Your task to perform on an android device: Open wifi settings Image 0: 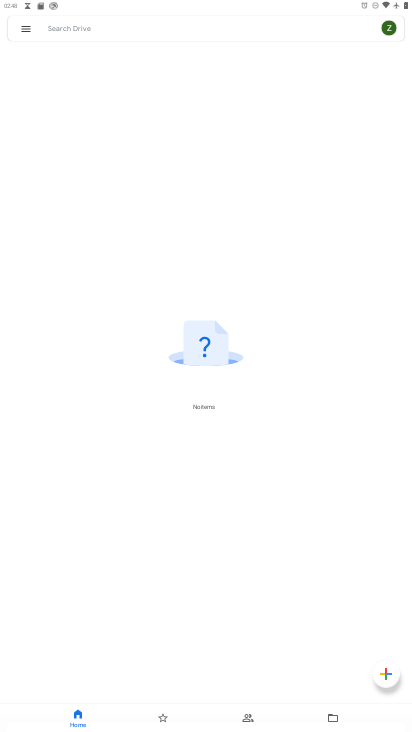
Step 0: press home button
Your task to perform on an android device: Open wifi settings Image 1: 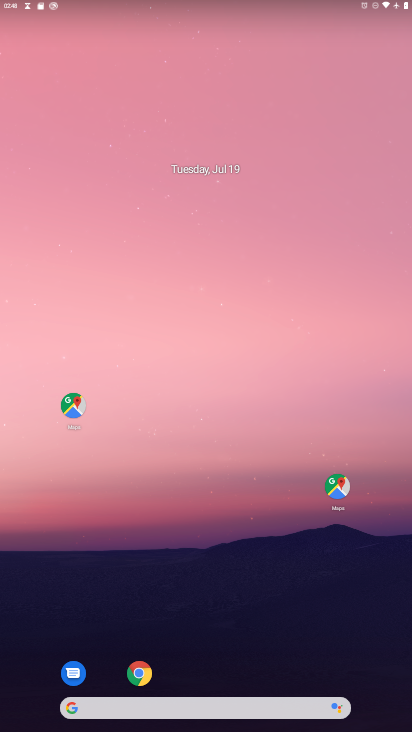
Step 1: drag from (258, 612) to (299, 139)
Your task to perform on an android device: Open wifi settings Image 2: 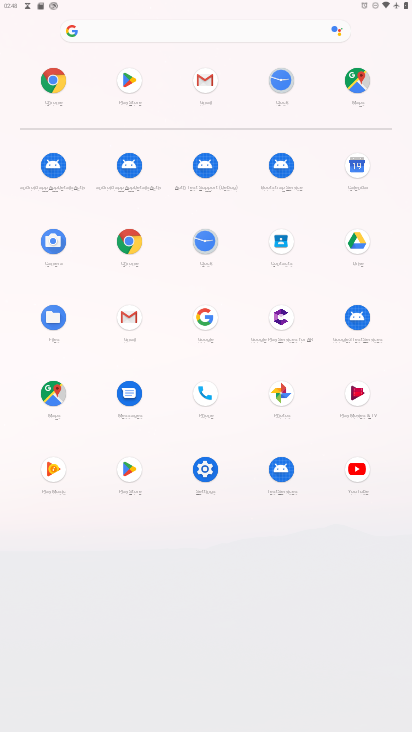
Step 2: click (213, 458)
Your task to perform on an android device: Open wifi settings Image 3: 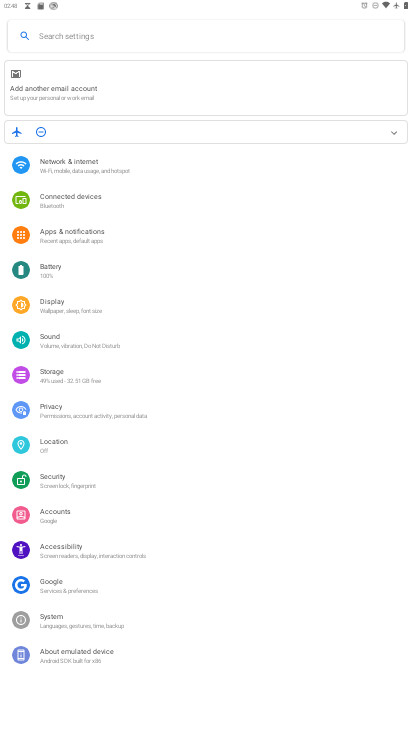
Step 3: click (90, 156)
Your task to perform on an android device: Open wifi settings Image 4: 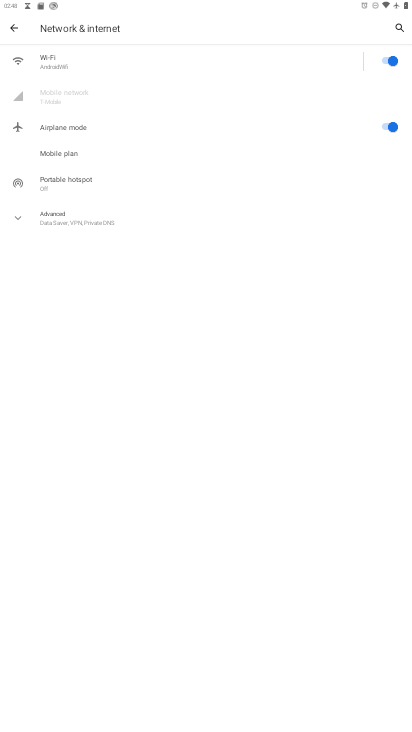
Step 4: click (205, 56)
Your task to perform on an android device: Open wifi settings Image 5: 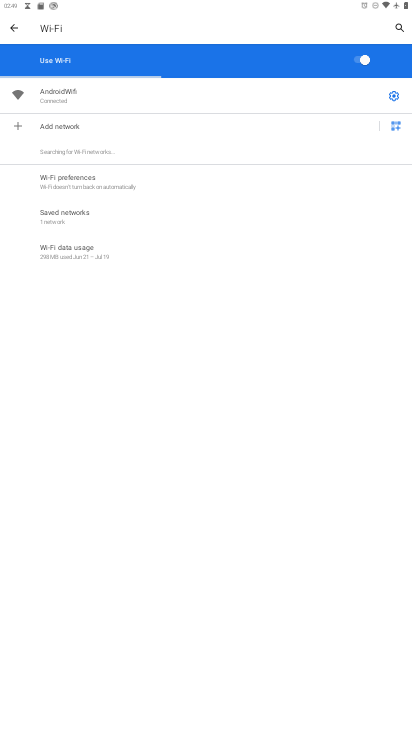
Step 5: task complete